Your task to perform on an android device: turn off improve location accuracy Image 0: 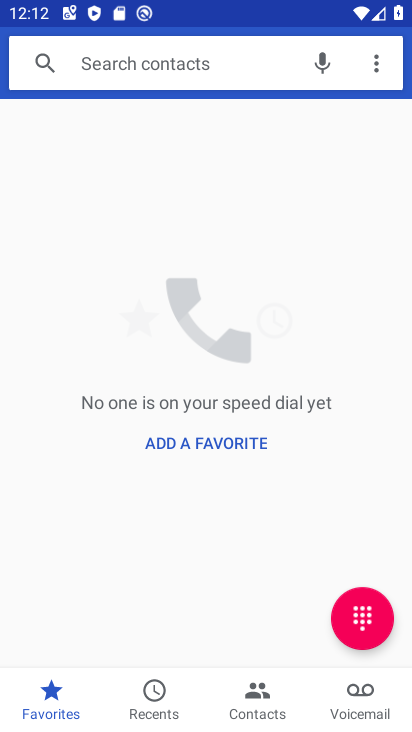
Step 0: press back button
Your task to perform on an android device: turn off improve location accuracy Image 1: 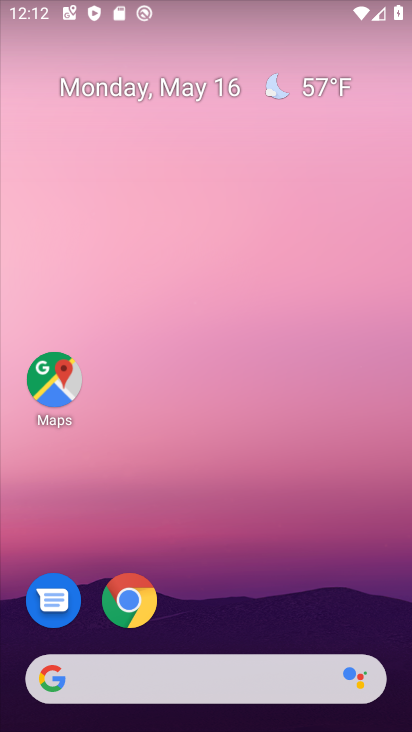
Step 1: drag from (201, 507) to (230, 84)
Your task to perform on an android device: turn off improve location accuracy Image 2: 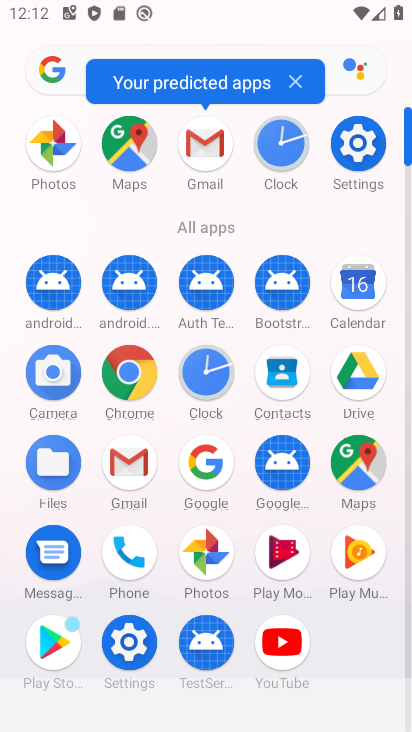
Step 2: click (356, 167)
Your task to perform on an android device: turn off improve location accuracy Image 3: 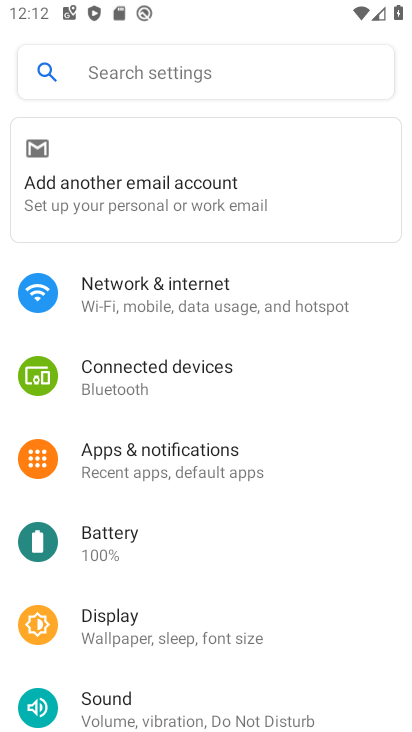
Step 3: drag from (301, 646) to (315, 146)
Your task to perform on an android device: turn off improve location accuracy Image 4: 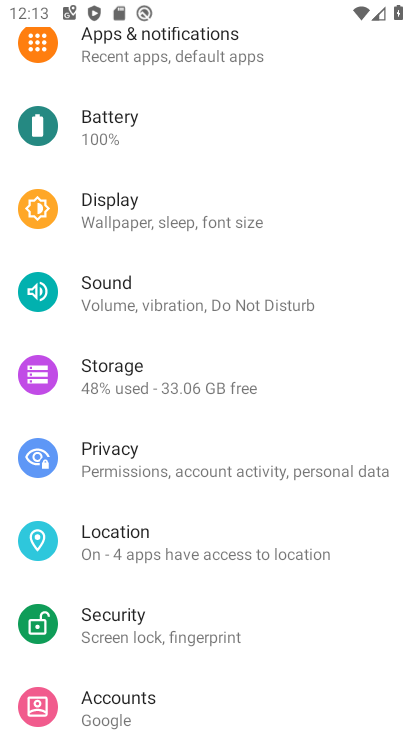
Step 4: click (164, 543)
Your task to perform on an android device: turn off improve location accuracy Image 5: 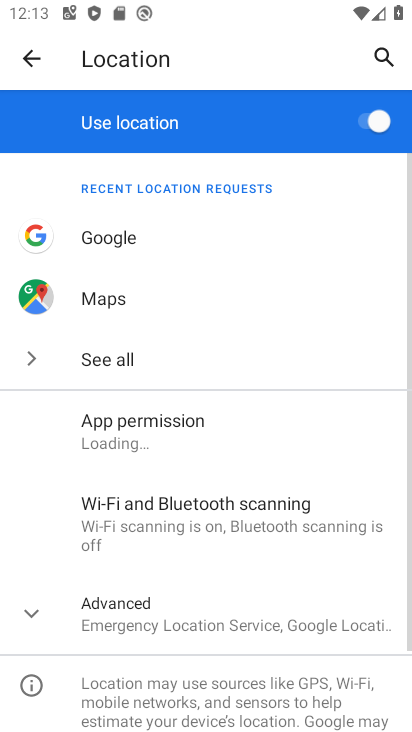
Step 5: click (152, 620)
Your task to perform on an android device: turn off improve location accuracy Image 6: 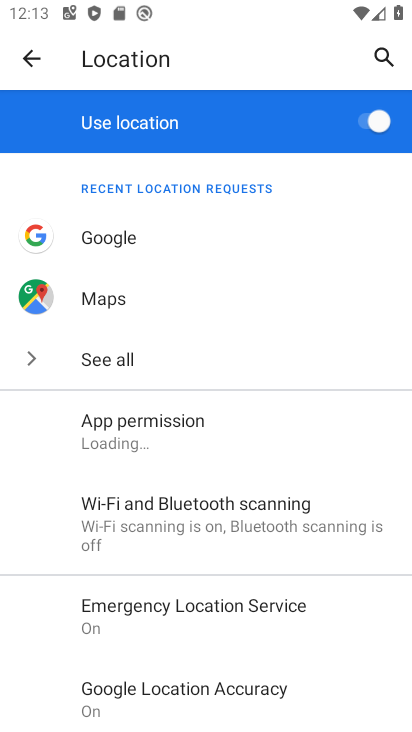
Step 6: click (205, 685)
Your task to perform on an android device: turn off improve location accuracy Image 7: 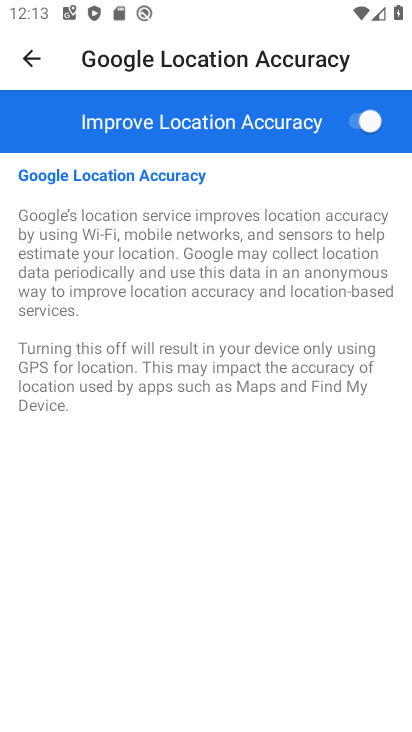
Step 7: click (369, 121)
Your task to perform on an android device: turn off improve location accuracy Image 8: 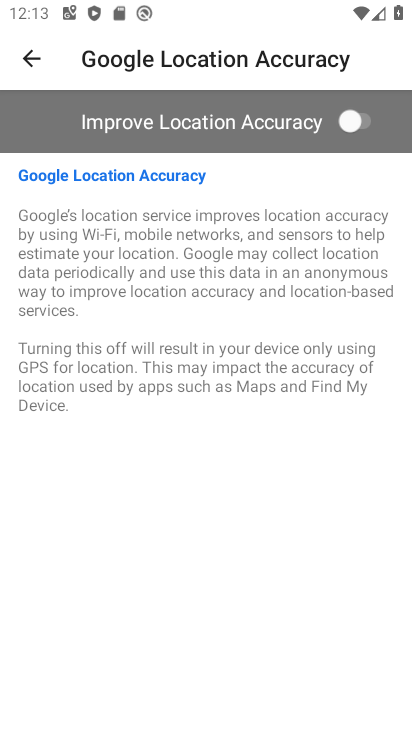
Step 8: task complete